Your task to perform on an android device: Go to display settings Image 0: 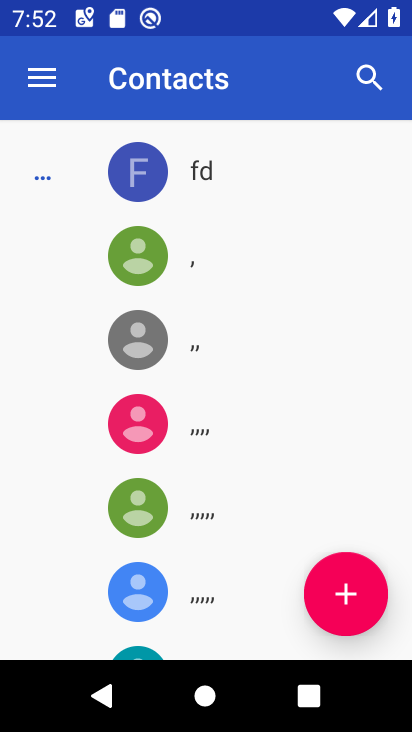
Step 0: press back button
Your task to perform on an android device: Go to display settings Image 1: 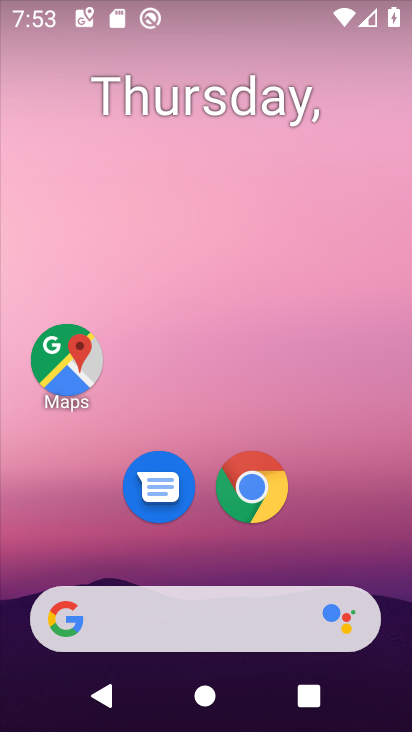
Step 1: drag from (246, 533) to (299, 63)
Your task to perform on an android device: Go to display settings Image 2: 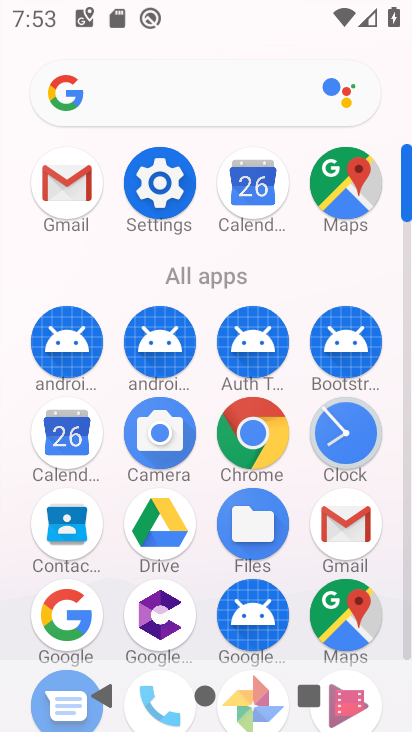
Step 2: click (144, 187)
Your task to perform on an android device: Go to display settings Image 3: 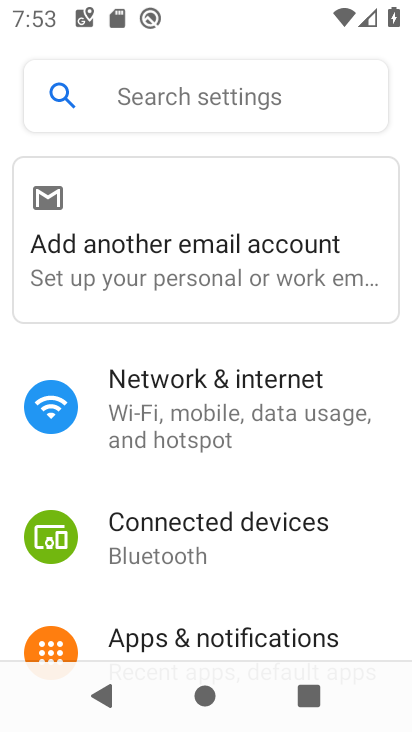
Step 3: drag from (193, 578) to (206, 57)
Your task to perform on an android device: Go to display settings Image 4: 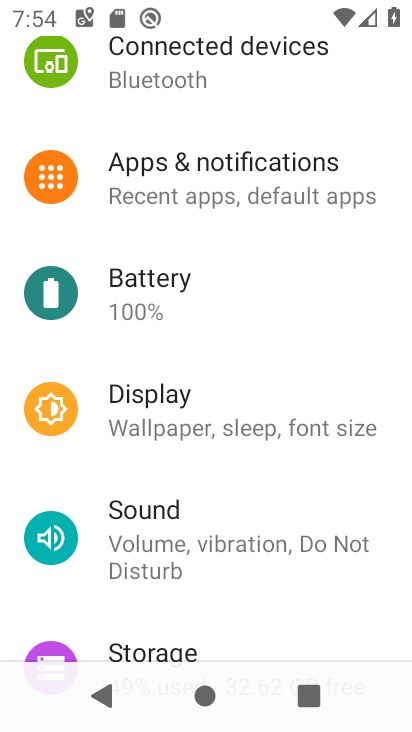
Step 4: click (206, 411)
Your task to perform on an android device: Go to display settings Image 5: 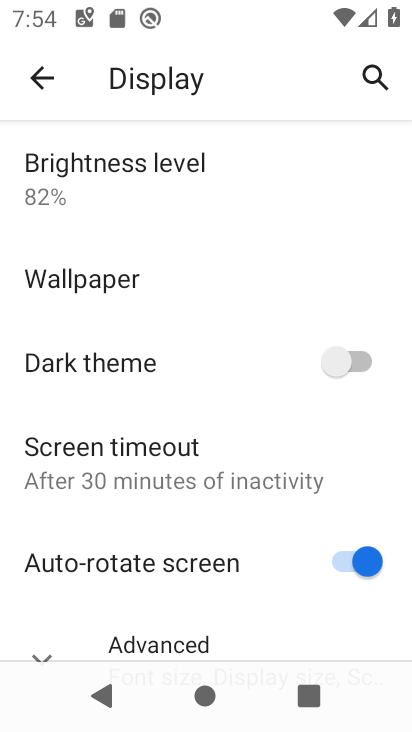
Step 5: task complete